Your task to perform on an android device: turn on javascript in the chrome app Image 0: 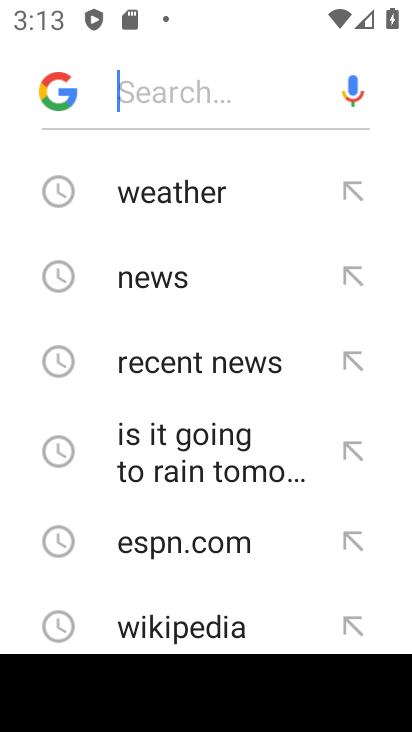
Step 0: press home button
Your task to perform on an android device: turn on javascript in the chrome app Image 1: 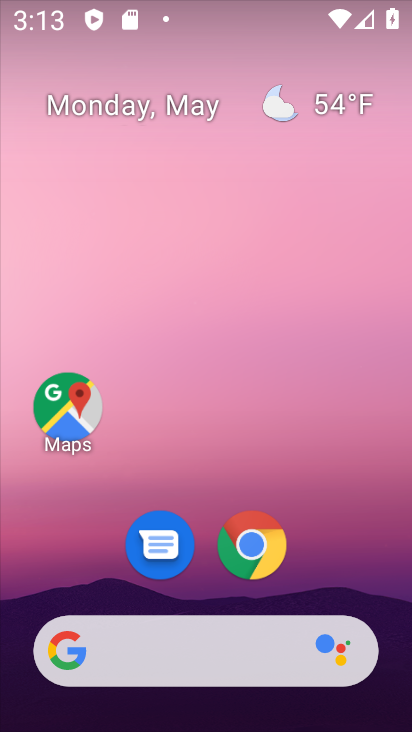
Step 1: click (252, 547)
Your task to perform on an android device: turn on javascript in the chrome app Image 2: 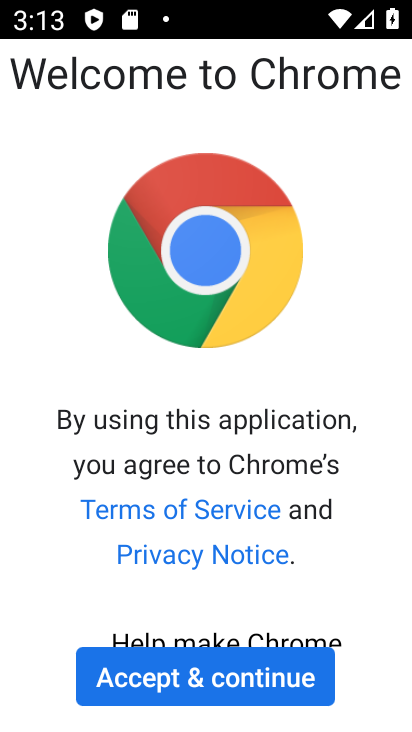
Step 2: click (224, 686)
Your task to perform on an android device: turn on javascript in the chrome app Image 3: 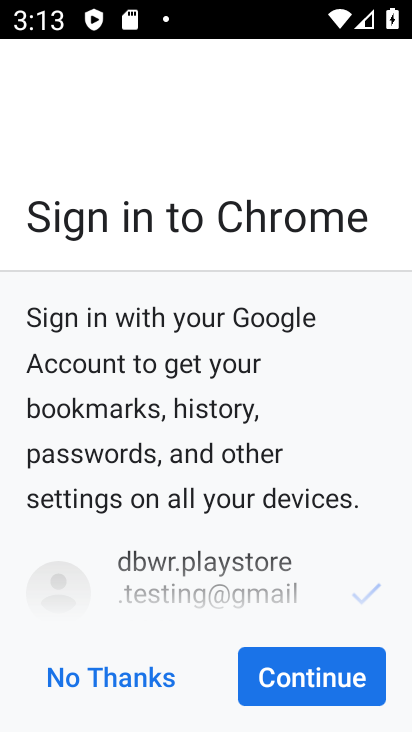
Step 3: click (301, 681)
Your task to perform on an android device: turn on javascript in the chrome app Image 4: 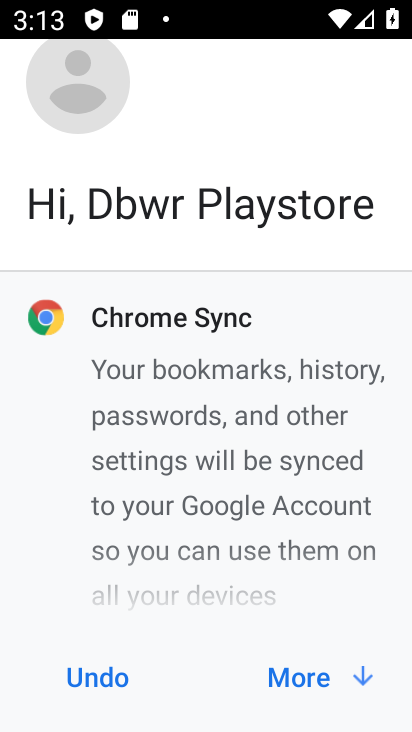
Step 4: click (301, 681)
Your task to perform on an android device: turn on javascript in the chrome app Image 5: 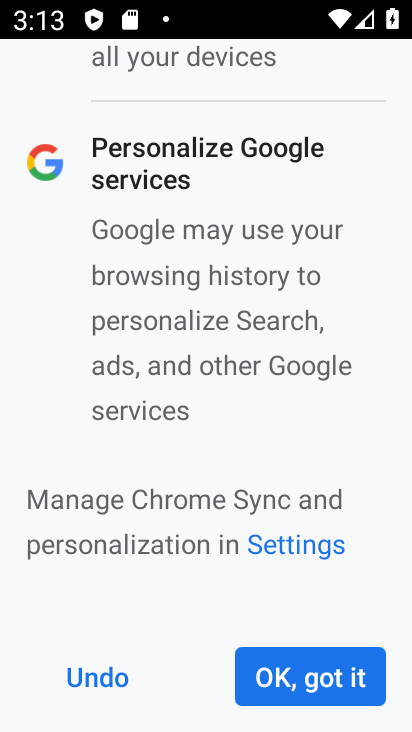
Step 5: click (301, 681)
Your task to perform on an android device: turn on javascript in the chrome app Image 6: 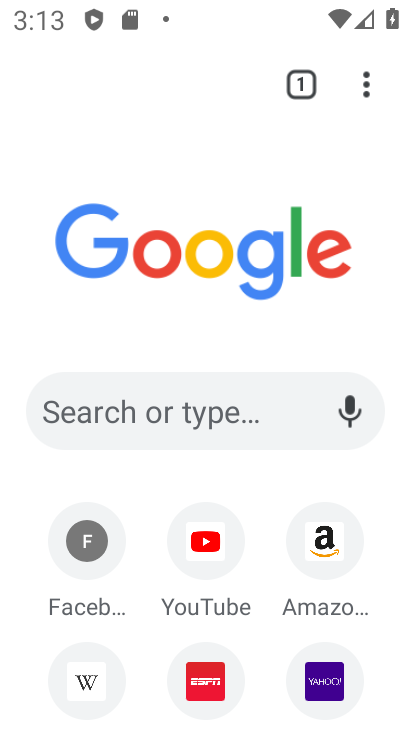
Step 6: click (369, 98)
Your task to perform on an android device: turn on javascript in the chrome app Image 7: 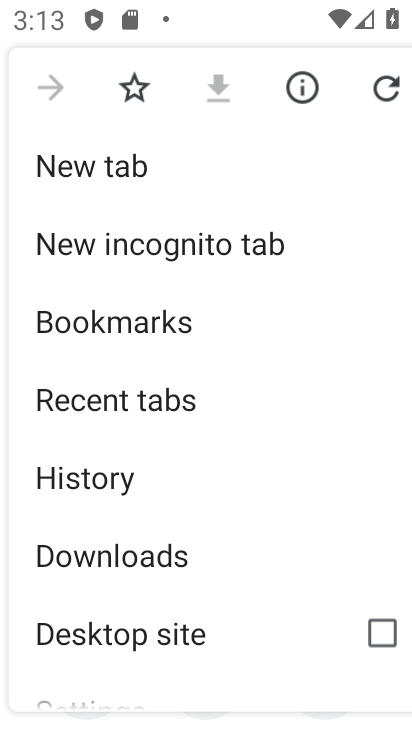
Step 7: drag from (187, 607) to (258, 197)
Your task to perform on an android device: turn on javascript in the chrome app Image 8: 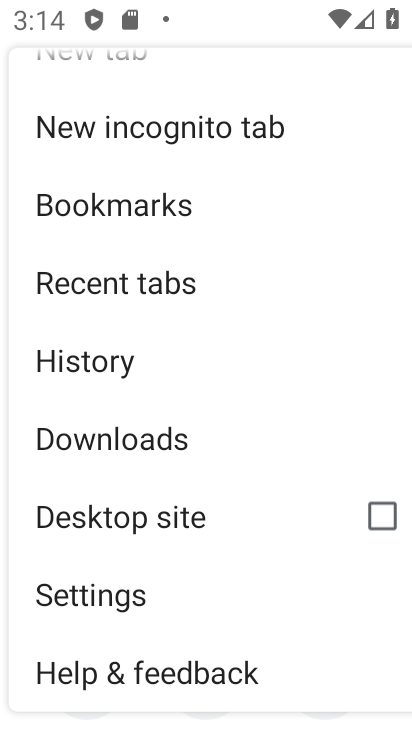
Step 8: click (112, 608)
Your task to perform on an android device: turn on javascript in the chrome app Image 9: 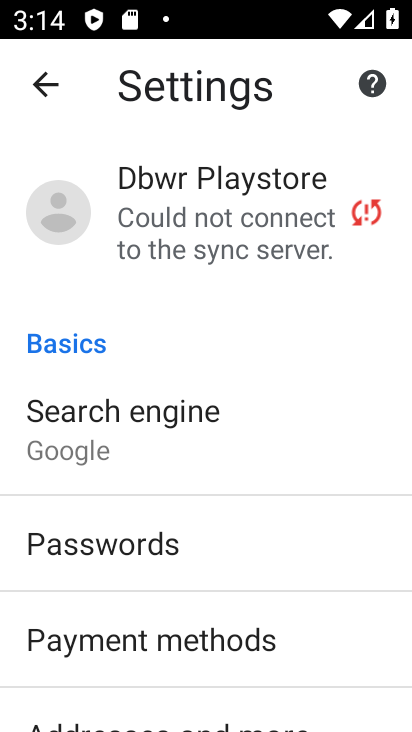
Step 9: drag from (257, 644) to (271, 341)
Your task to perform on an android device: turn on javascript in the chrome app Image 10: 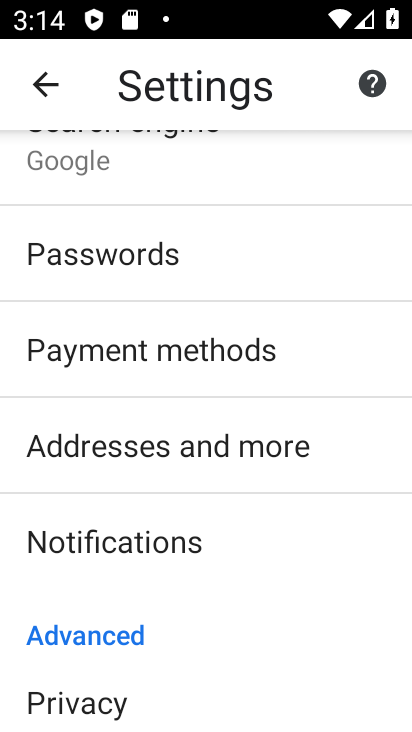
Step 10: drag from (220, 622) to (258, 305)
Your task to perform on an android device: turn on javascript in the chrome app Image 11: 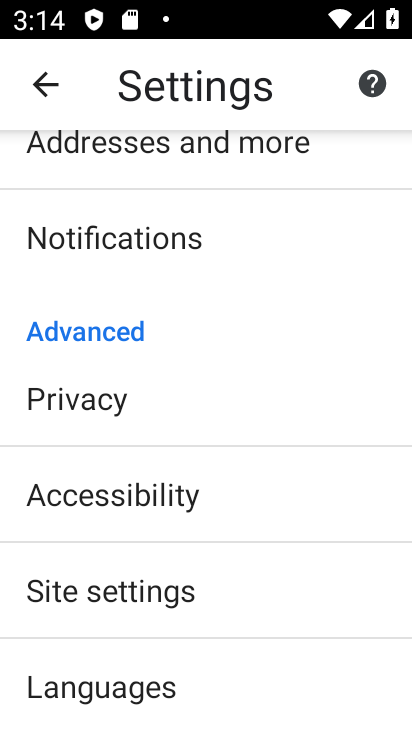
Step 11: click (128, 608)
Your task to perform on an android device: turn on javascript in the chrome app Image 12: 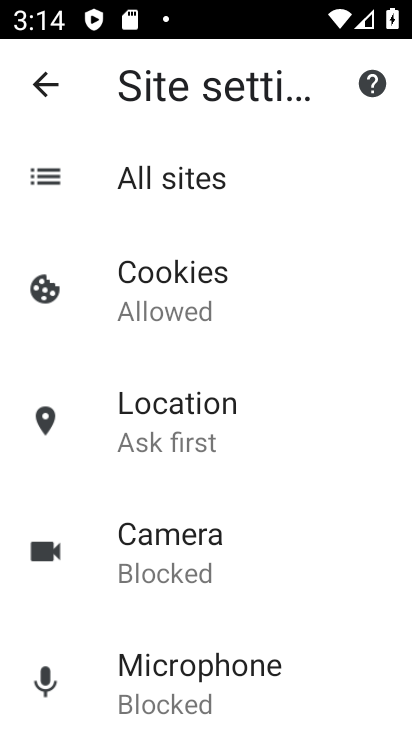
Step 12: drag from (276, 647) to (294, 332)
Your task to perform on an android device: turn on javascript in the chrome app Image 13: 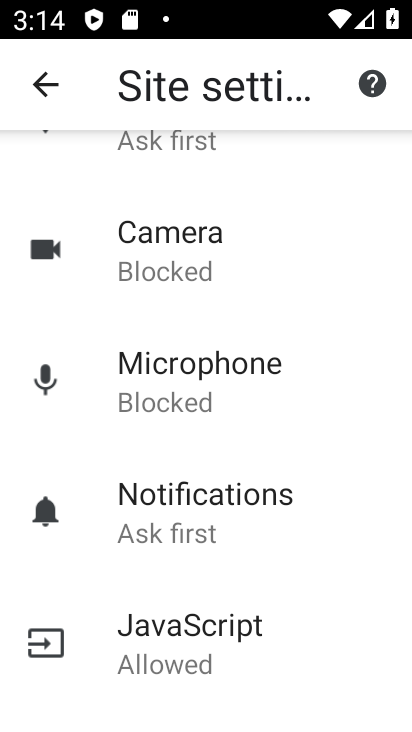
Step 13: click (205, 629)
Your task to perform on an android device: turn on javascript in the chrome app Image 14: 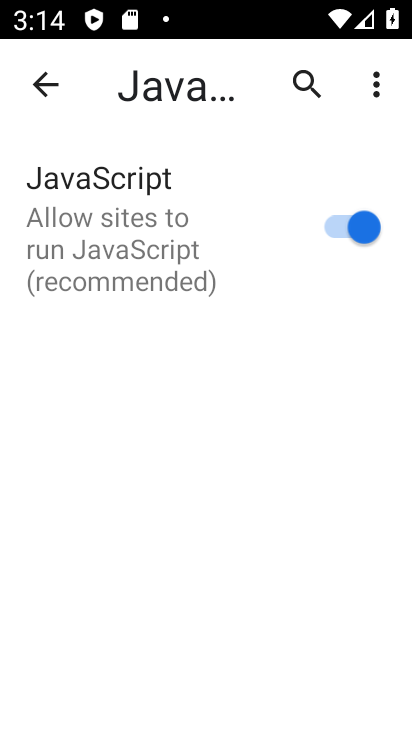
Step 14: task complete